Your task to perform on an android device: Is it going to rain tomorrow? Image 0: 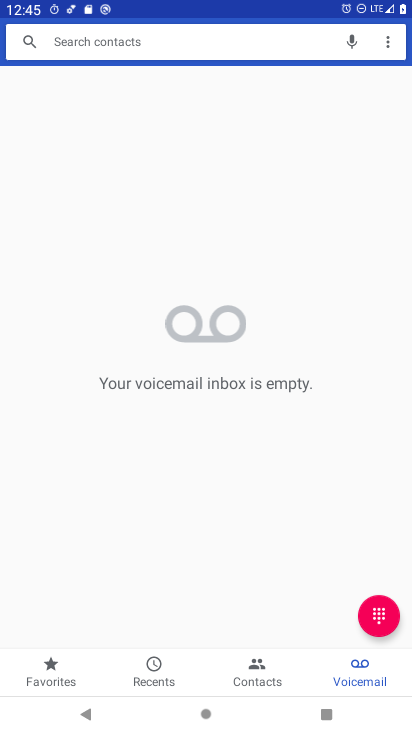
Step 0: press home button
Your task to perform on an android device: Is it going to rain tomorrow? Image 1: 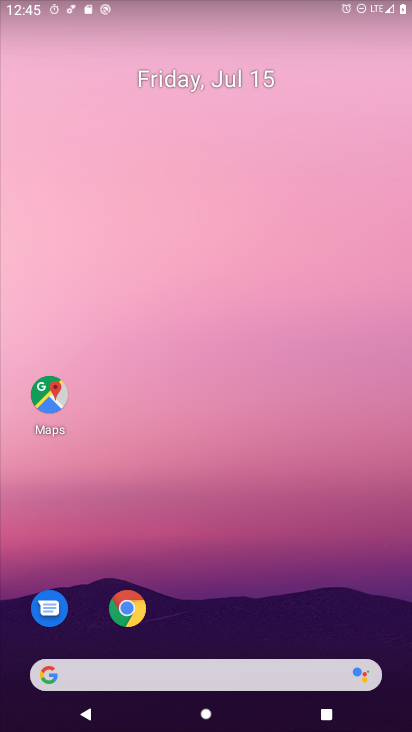
Step 1: drag from (293, 697) to (232, 224)
Your task to perform on an android device: Is it going to rain tomorrow? Image 2: 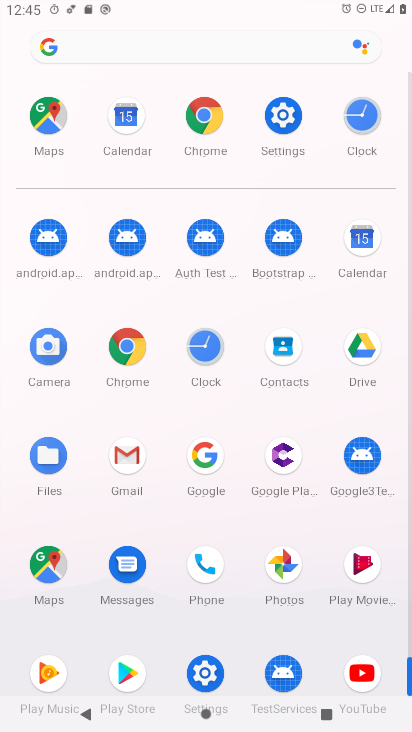
Step 2: click (131, 338)
Your task to perform on an android device: Is it going to rain tomorrow? Image 3: 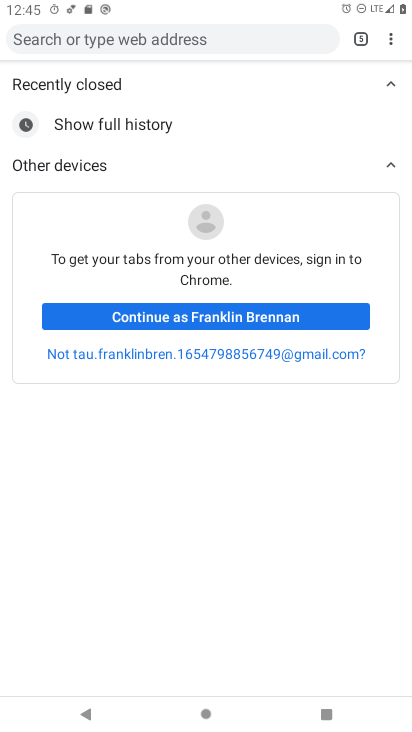
Step 3: click (185, 44)
Your task to perform on an android device: Is it going to rain tomorrow? Image 4: 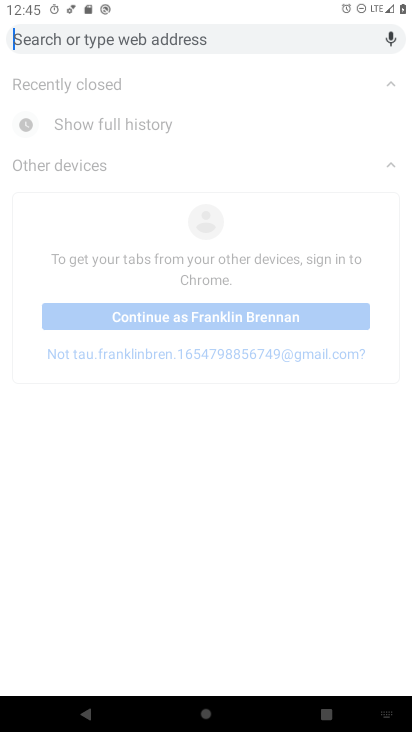
Step 4: type "going to rain tomorrow"
Your task to perform on an android device: Is it going to rain tomorrow? Image 5: 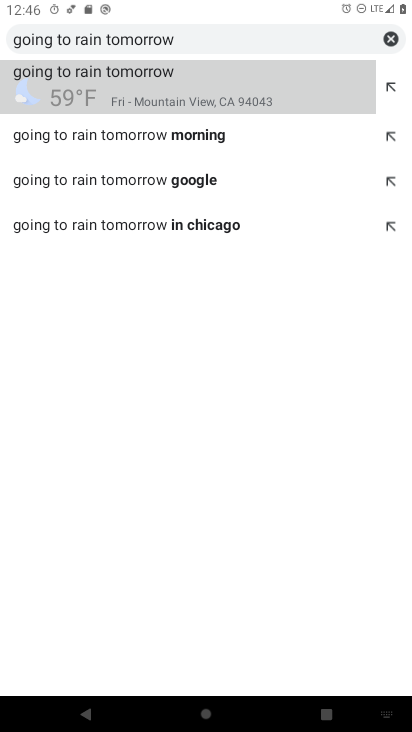
Step 5: click (189, 93)
Your task to perform on an android device: Is it going to rain tomorrow? Image 6: 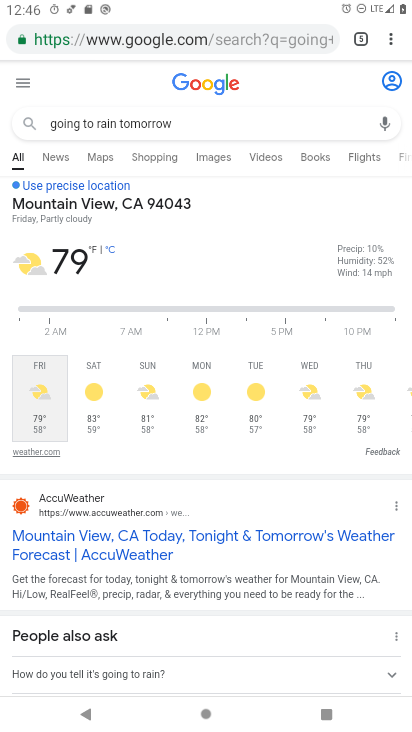
Step 6: task complete